Your task to perform on an android device: Go to Reddit.com Image 0: 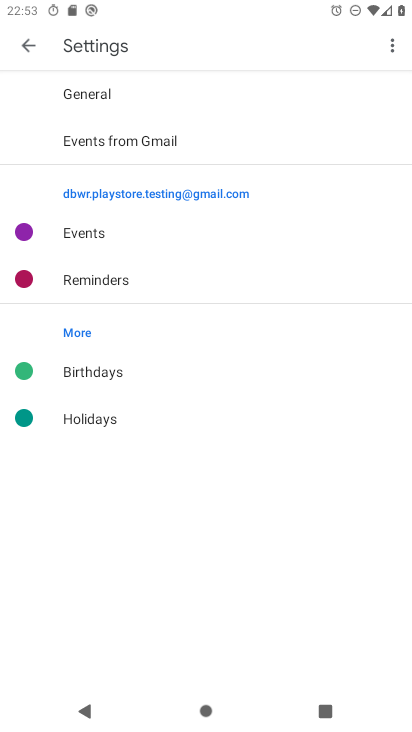
Step 0: press home button
Your task to perform on an android device: Go to Reddit.com Image 1: 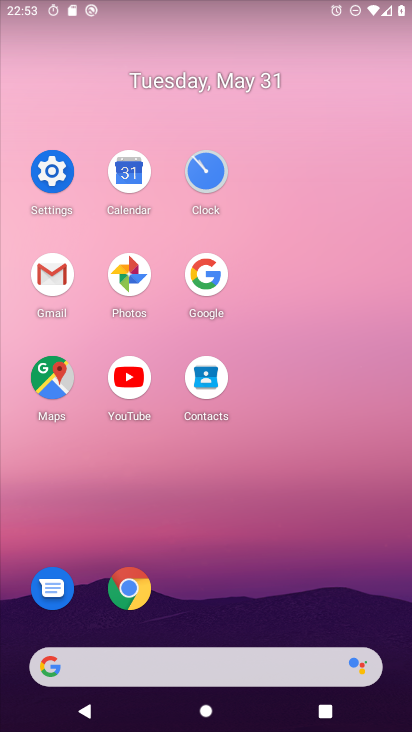
Step 1: click (129, 618)
Your task to perform on an android device: Go to Reddit.com Image 2: 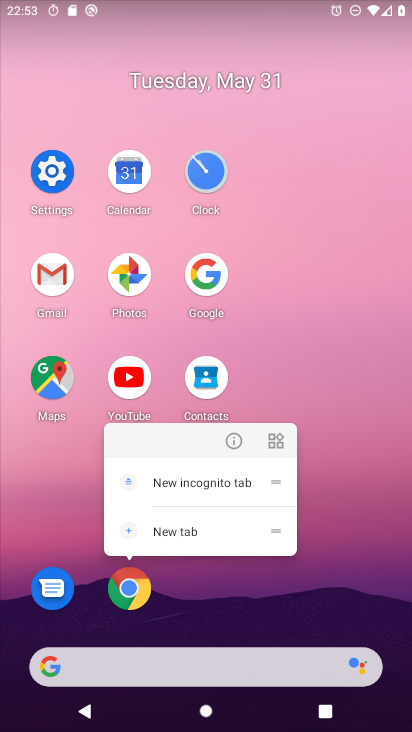
Step 2: click (127, 594)
Your task to perform on an android device: Go to Reddit.com Image 3: 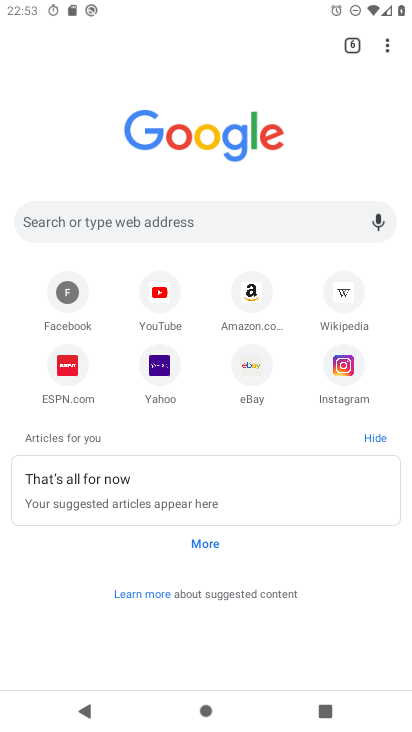
Step 3: click (209, 233)
Your task to perform on an android device: Go to Reddit.com Image 4: 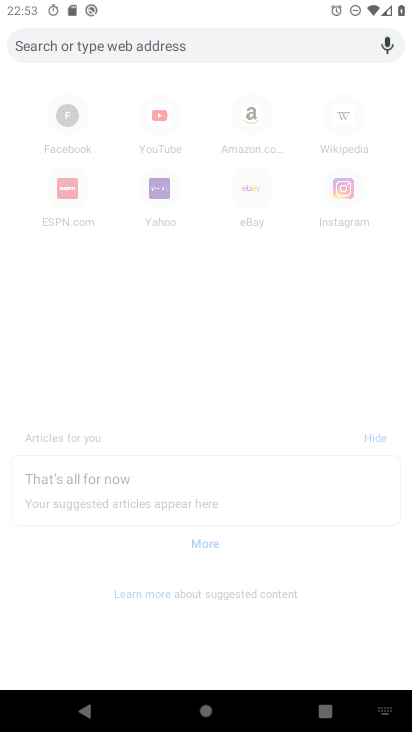
Step 4: type "reddit"
Your task to perform on an android device: Go to Reddit.com Image 5: 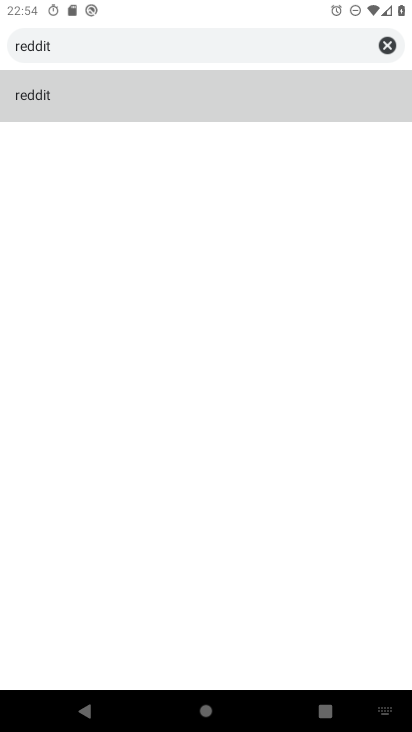
Step 5: click (81, 91)
Your task to perform on an android device: Go to Reddit.com Image 6: 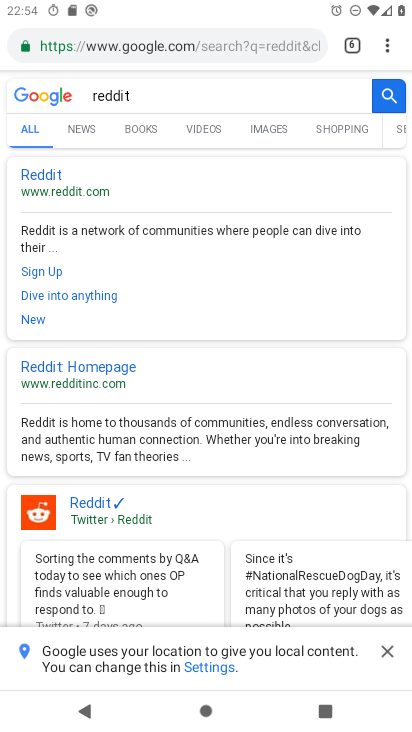
Step 6: click (48, 176)
Your task to perform on an android device: Go to Reddit.com Image 7: 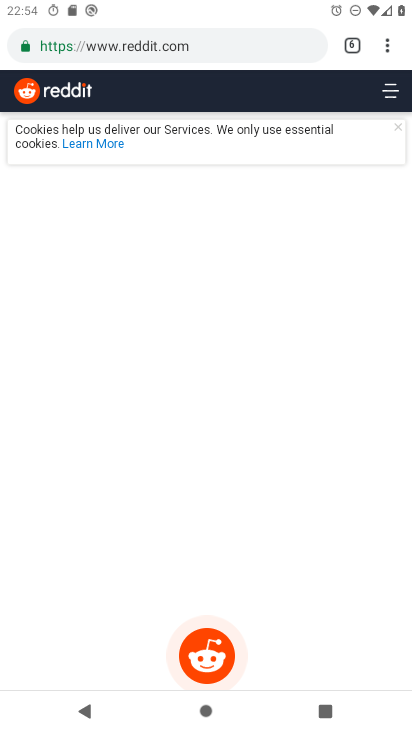
Step 7: task complete